Your task to perform on an android device: Open ESPN.com Image 0: 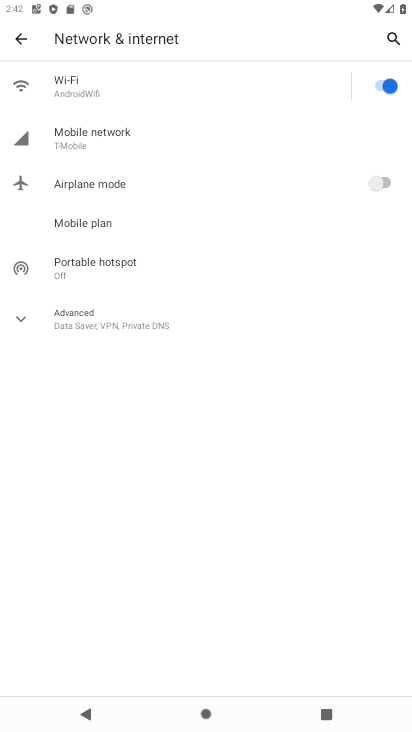
Step 0: press home button
Your task to perform on an android device: Open ESPN.com Image 1: 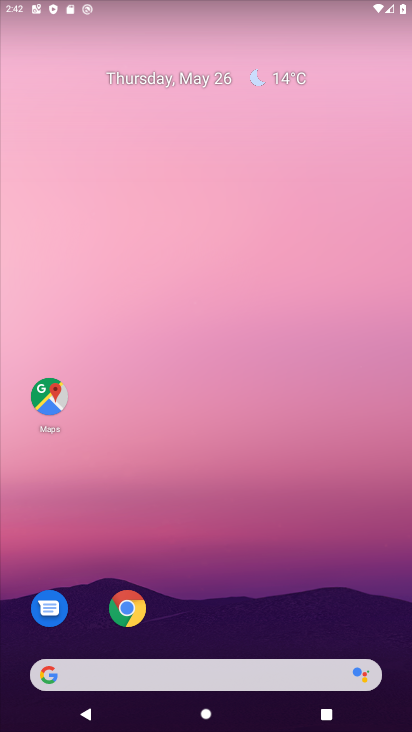
Step 1: drag from (275, 584) to (288, 120)
Your task to perform on an android device: Open ESPN.com Image 2: 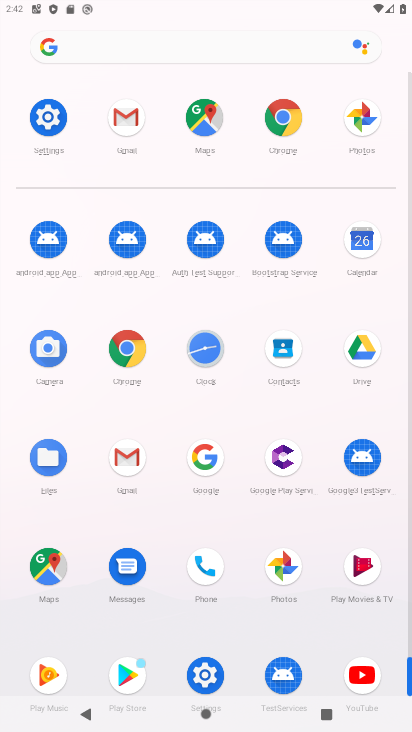
Step 2: click (289, 128)
Your task to perform on an android device: Open ESPN.com Image 3: 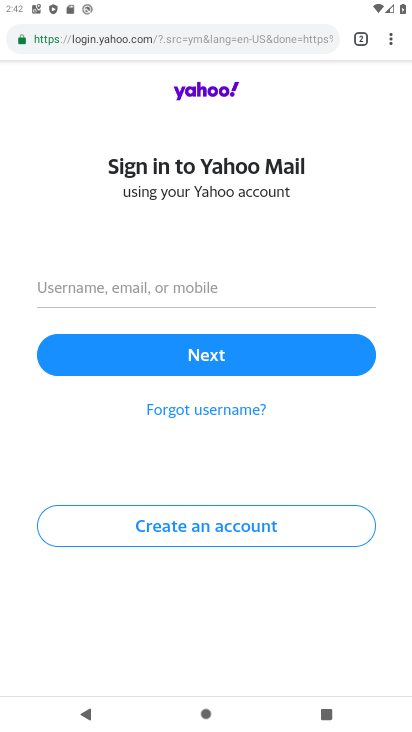
Step 3: click (195, 36)
Your task to perform on an android device: Open ESPN.com Image 4: 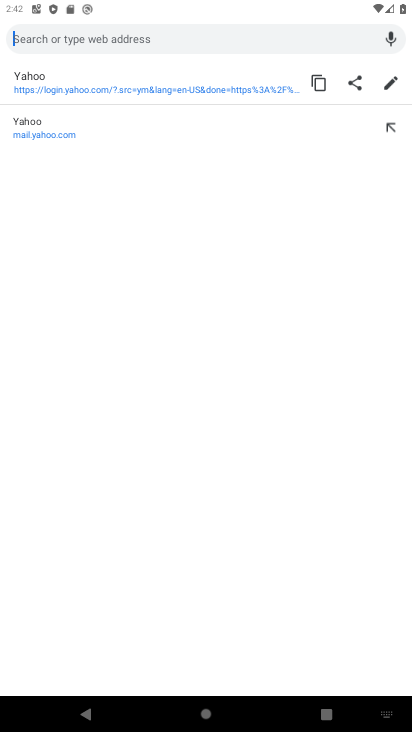
Step 4: type "espn"
Your task to perform on an android device: Open ESPN.com Image 5: 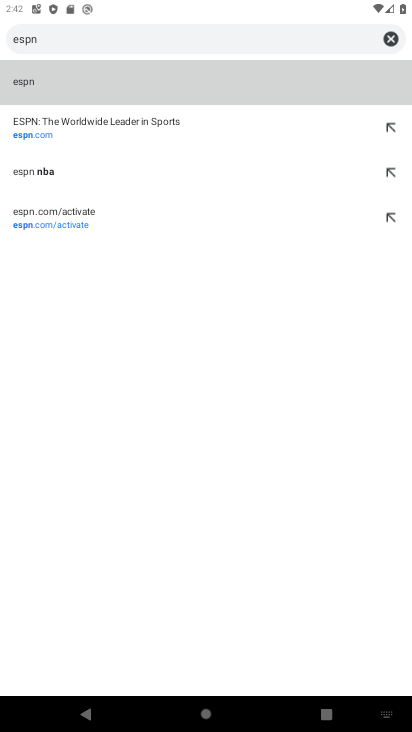
Step 5: click (30, 125)
Your task to perform on an android device: Open ESPN.com Image 6: 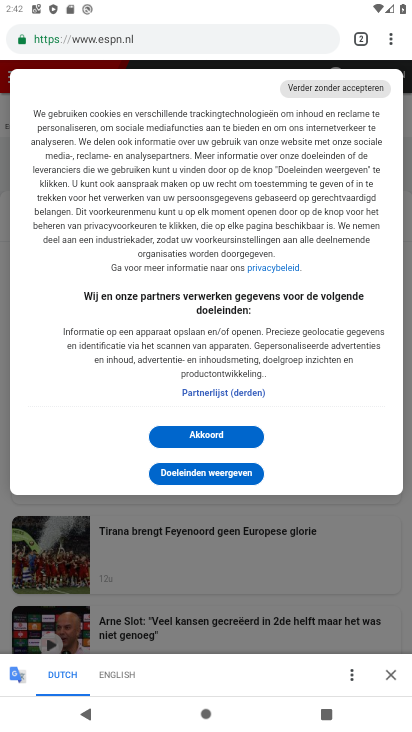
Step 6: task complete